Your task to perform on an android device: Open Chrome and go to settings Image 0: 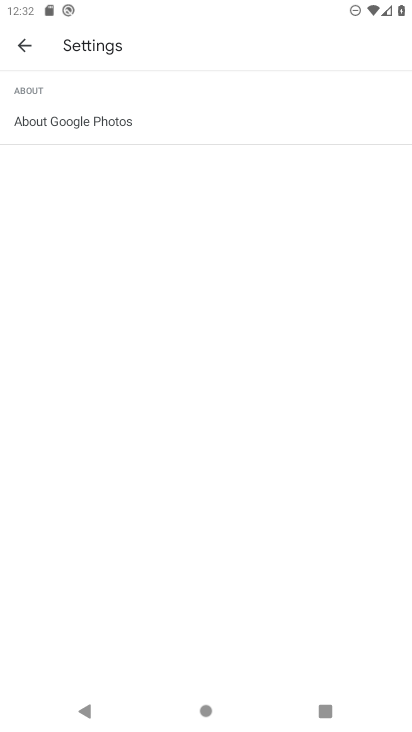
Step 0: press home button
Your task to perform on an android device: Open Chrome and go to settings Image 1: 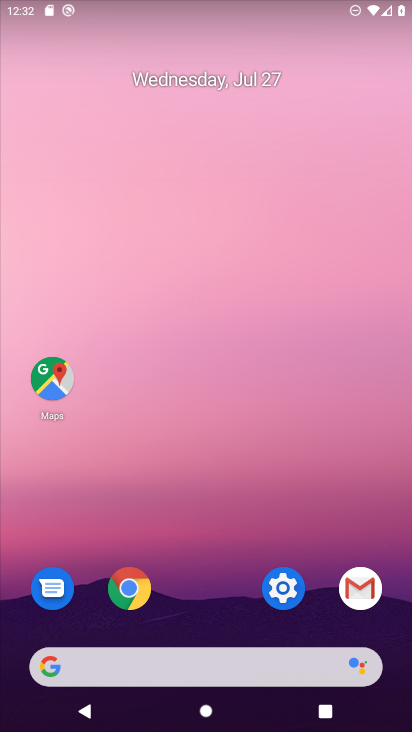
Step 1: click (128, 587)
Your task to perform on an android device: Open Chrome and go to settings Image 2: 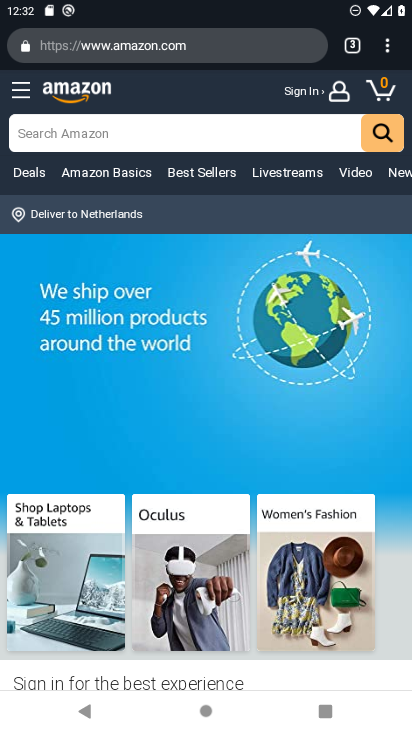
Step 2: click (383, 51)
Your task to perform on an android device: Open Chrome and go to settings Image 3: 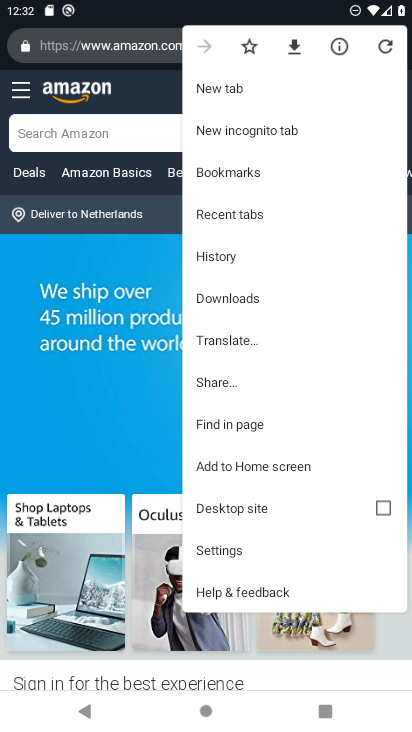
Step 3: click (220, 552)
Your task to perform on an android device: Open Chrome and go to settings Image 4: 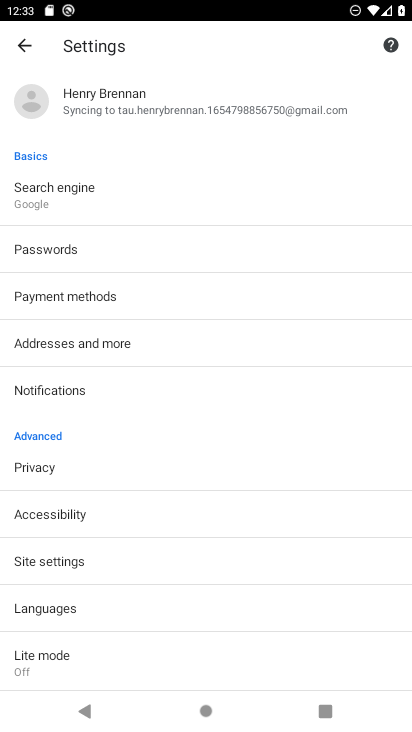
Step 4: task complete